Your task to perform on an android device: change notifications settings Image 0: 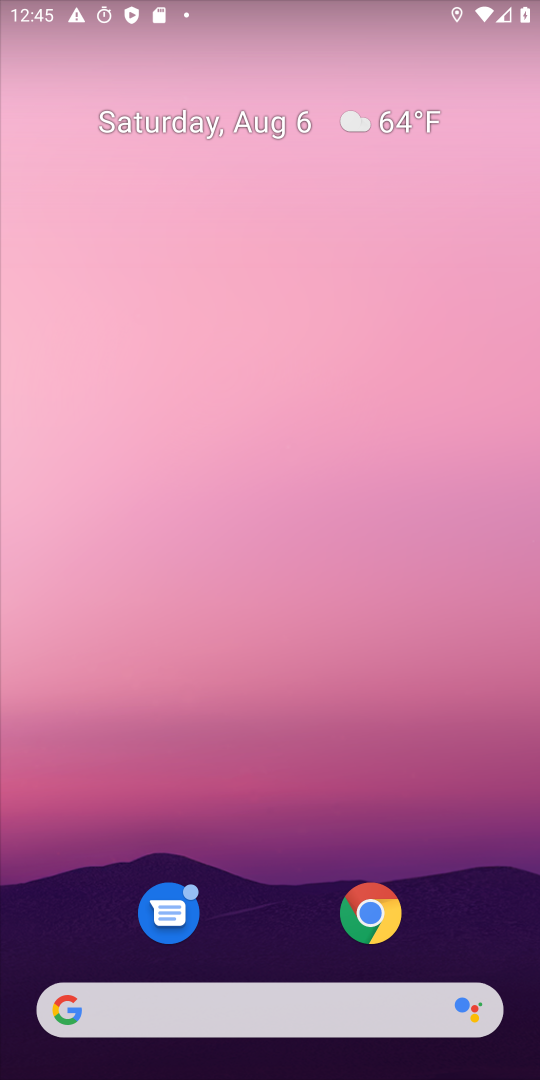
Step 0: press home button
Your task to perform on an android device: change notifications settings Image 1: 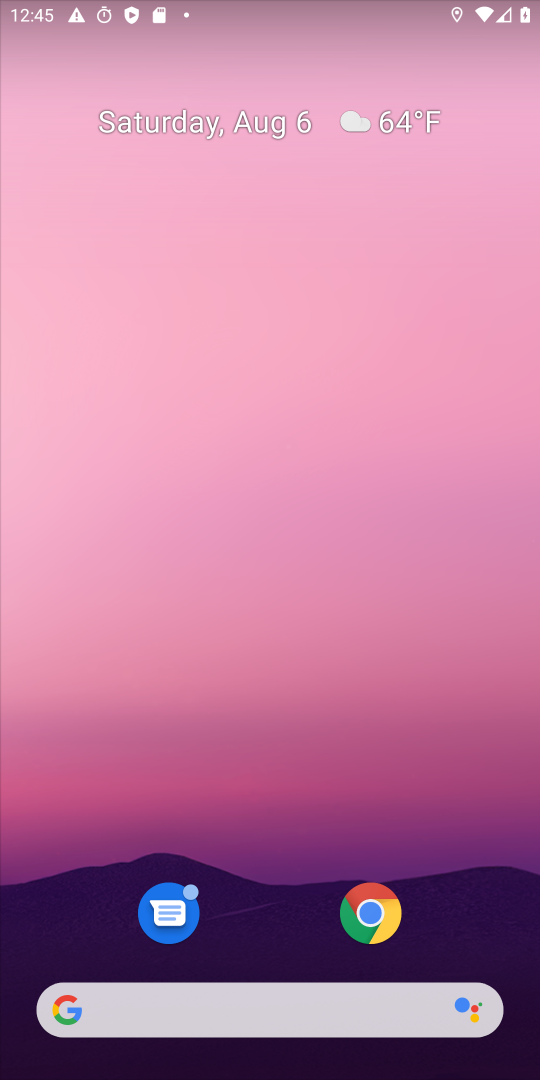
Step 1: drag from (453, 933) to (445, 340)
Your task to perform on an android device: change notifications settings Image 2: 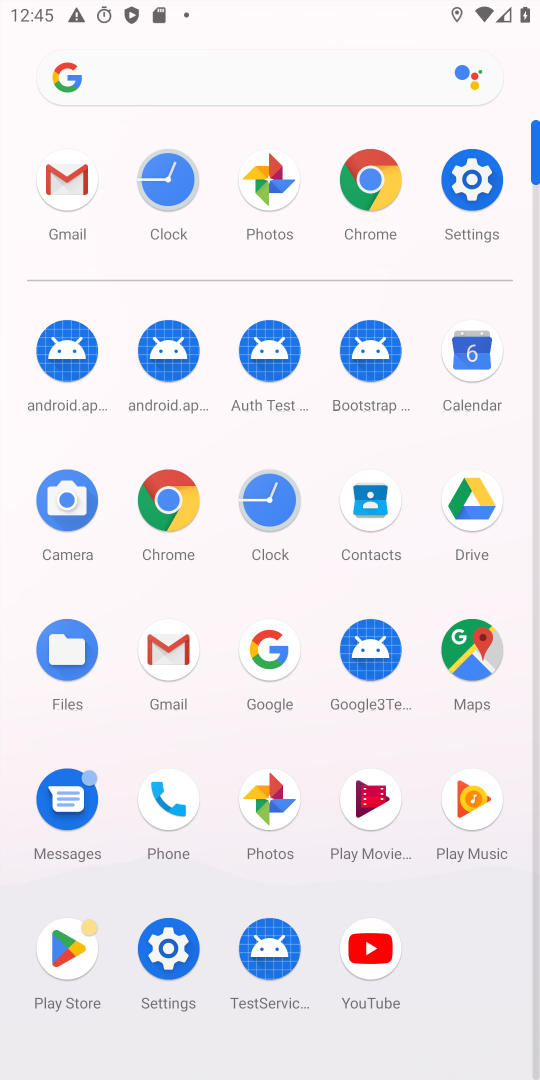
Step 2: click (477, 177)
Your task to perform on an android device: change notifications settings Image 3: 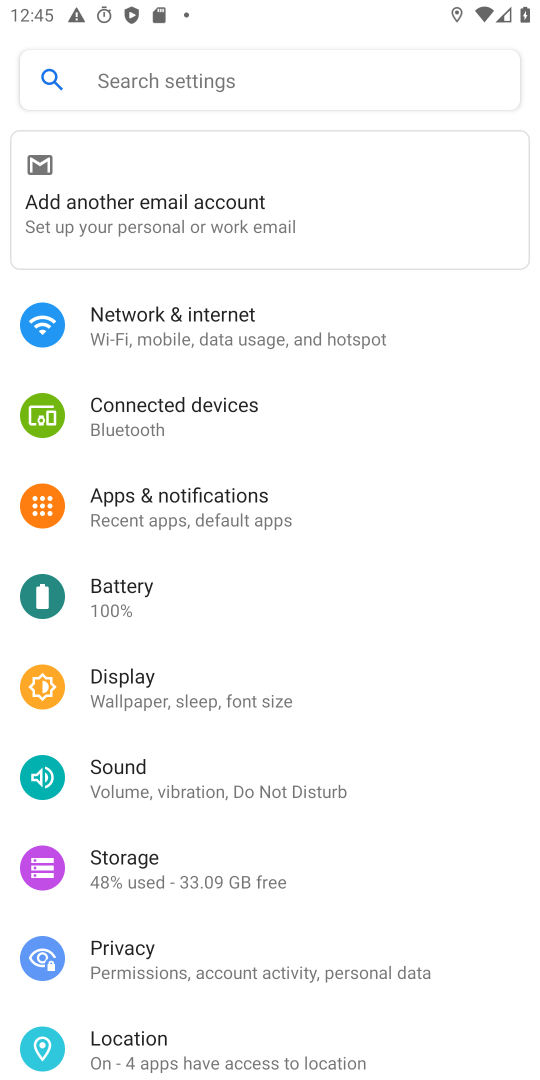
Step 3: drag from (400, 620) to (400, 555)
Your task to perform on an android device: change notifications settings Image 4: 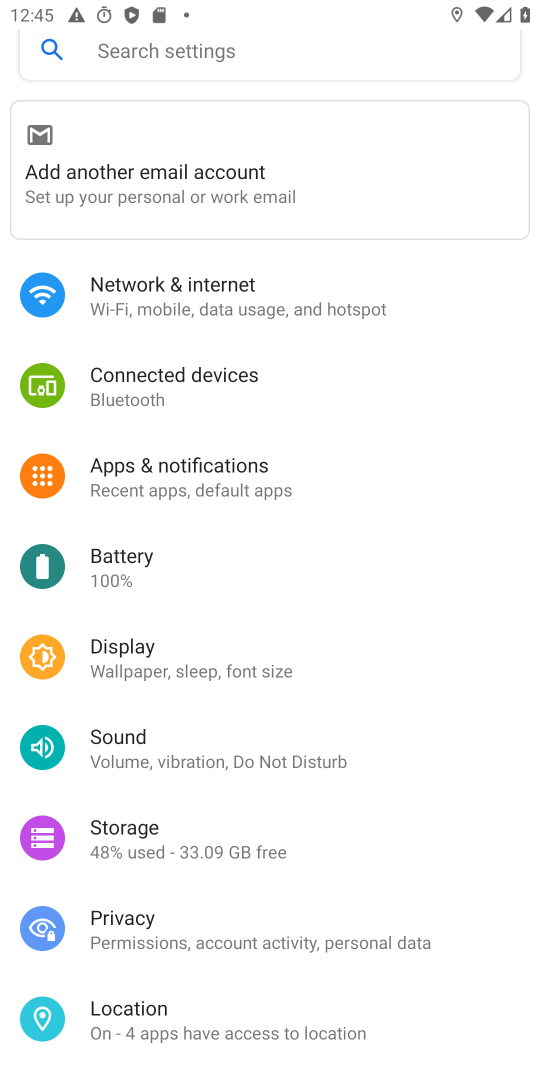
Step 4: drag from (420, 719) to (416, 554)
Your task to perform on an android device: change notifications settings Image 5: 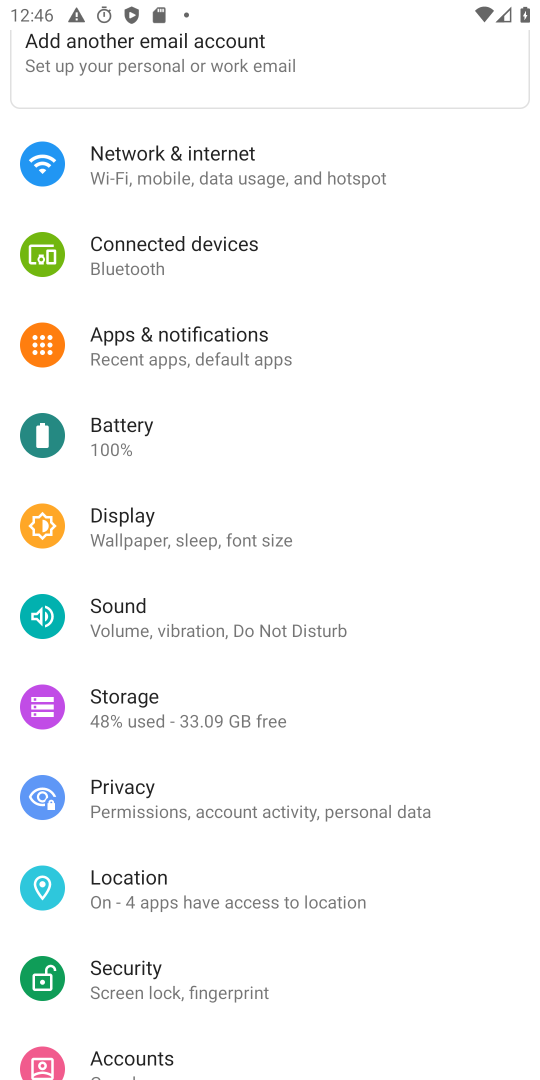
Step 5: drag from (461, 800) to (447, 572)
Your task to perform on an android device: change notifications settings Image 6: 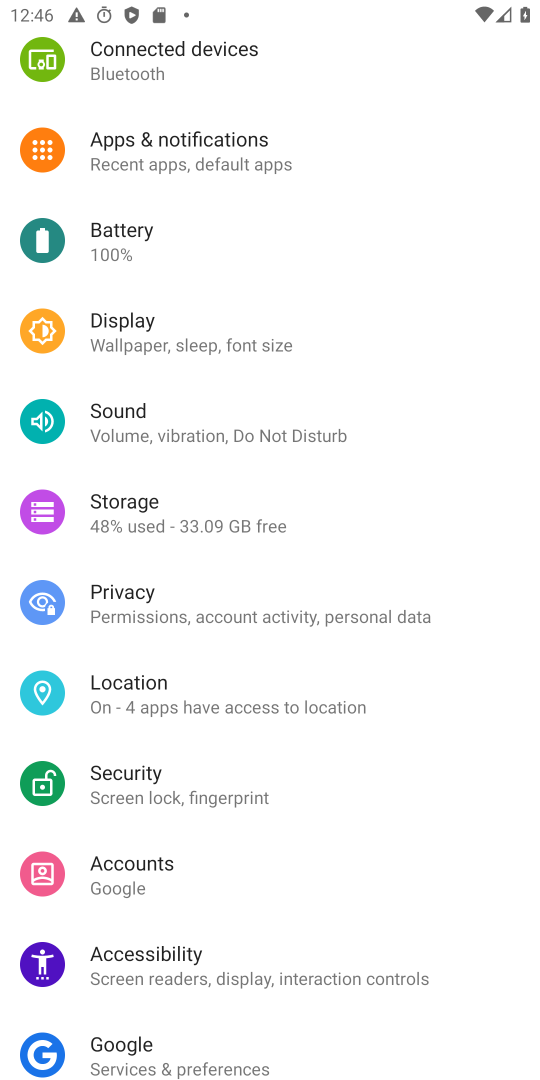
Step 6: drag from (455, 836) to (464, 638)
Your task to perform on an android device: change notifications settings Image 7: 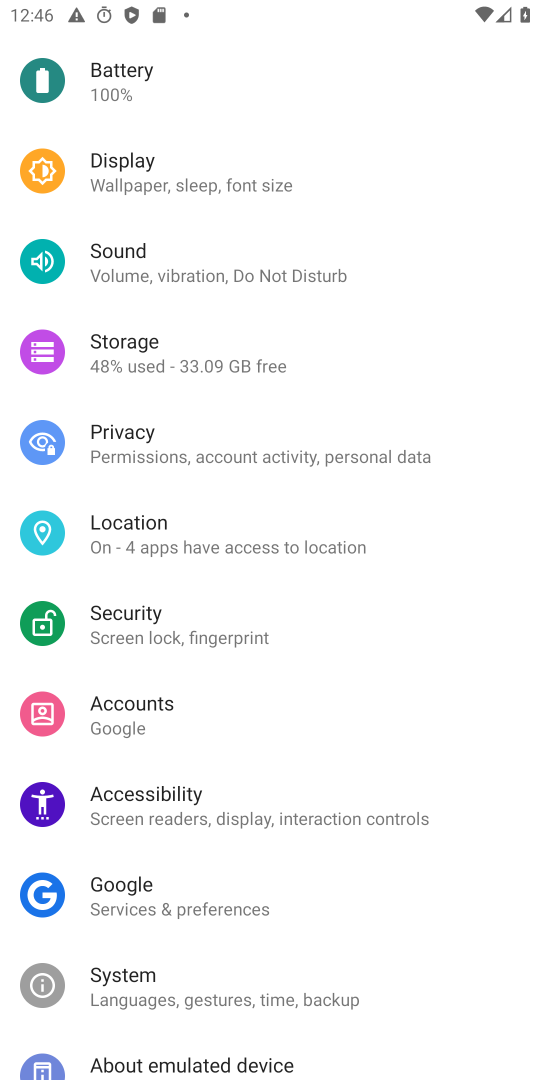
Step 7: drag from (478, 880) to (480, 623)
Your task to perform on an android device: change notifications settings Image 8: 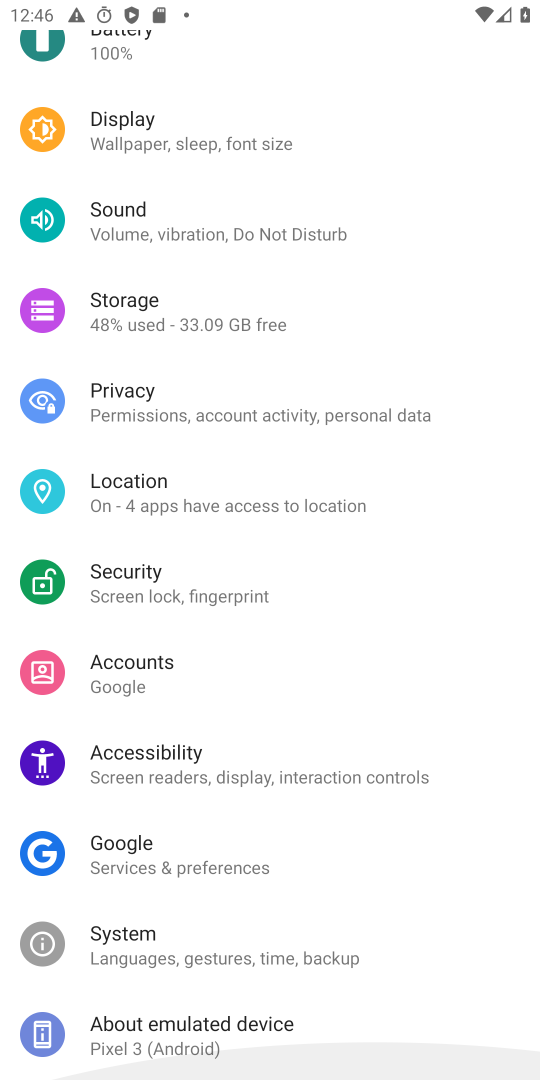
Step 8: drag from (498, 465) to (495, 687)
Your task to perform on an android device: change notifications settings Image 9: 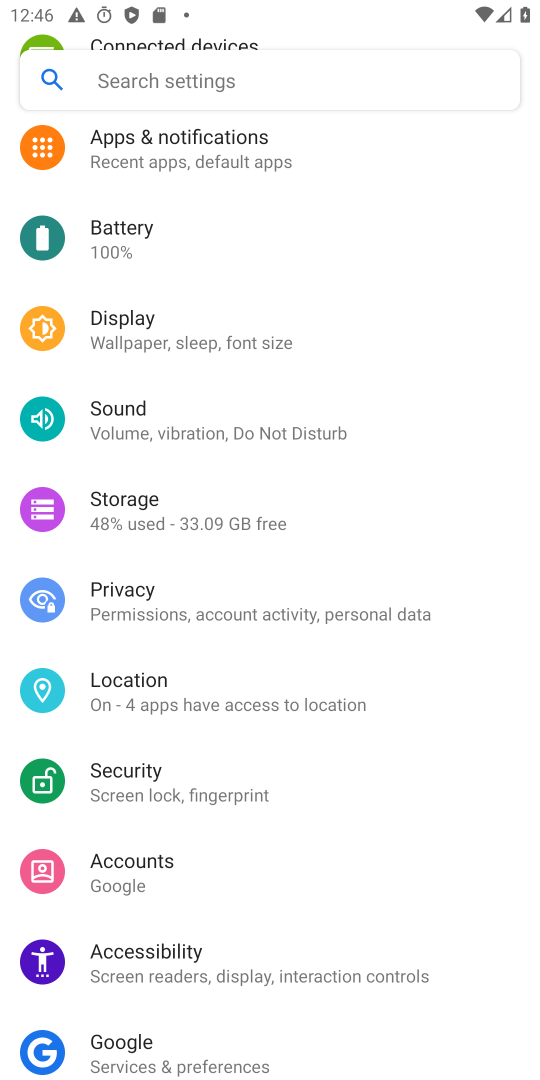
Step 9: drag from (481, 366) to (477, 563)
Your task to perform on an android device: change notifications settings Image 10: 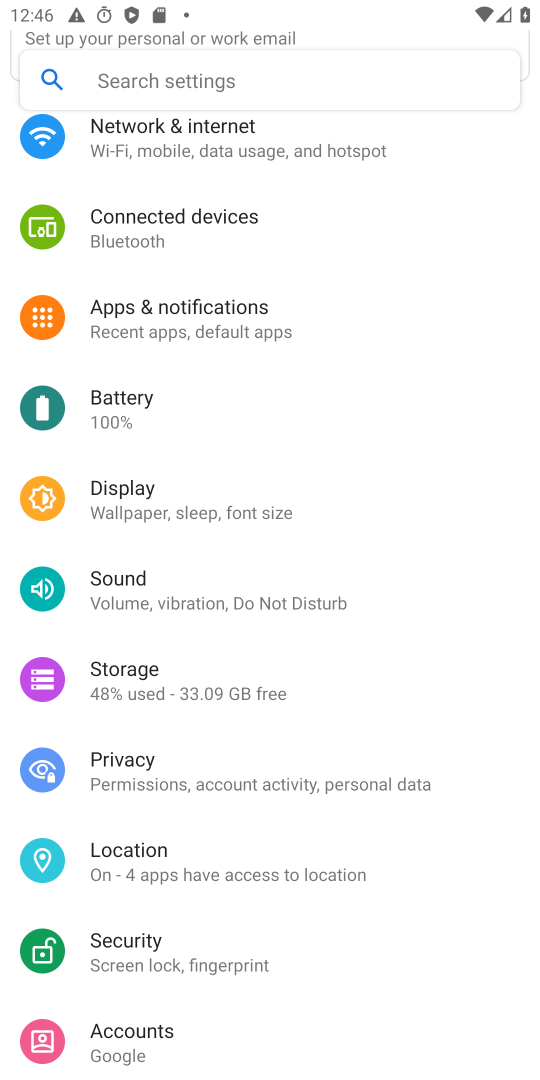
Step 10: drag from (481, 350) to (482, 547)
Your task to perform on an android device: change notifications settings Image 11: 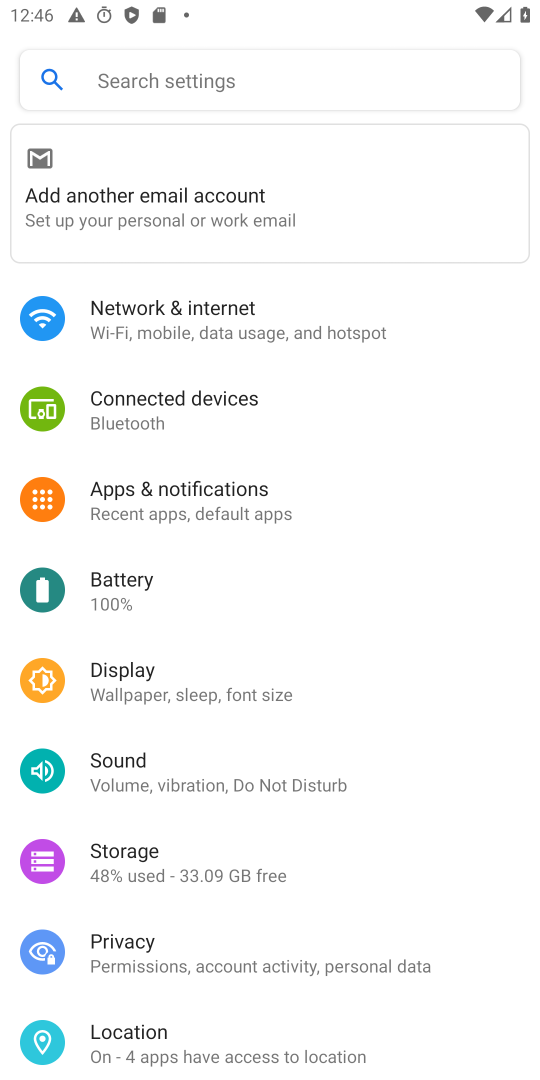
Step 11: drag from (484, 301) to (468, 556)
Your task to perform on an android device: change notifications settings Image 12: 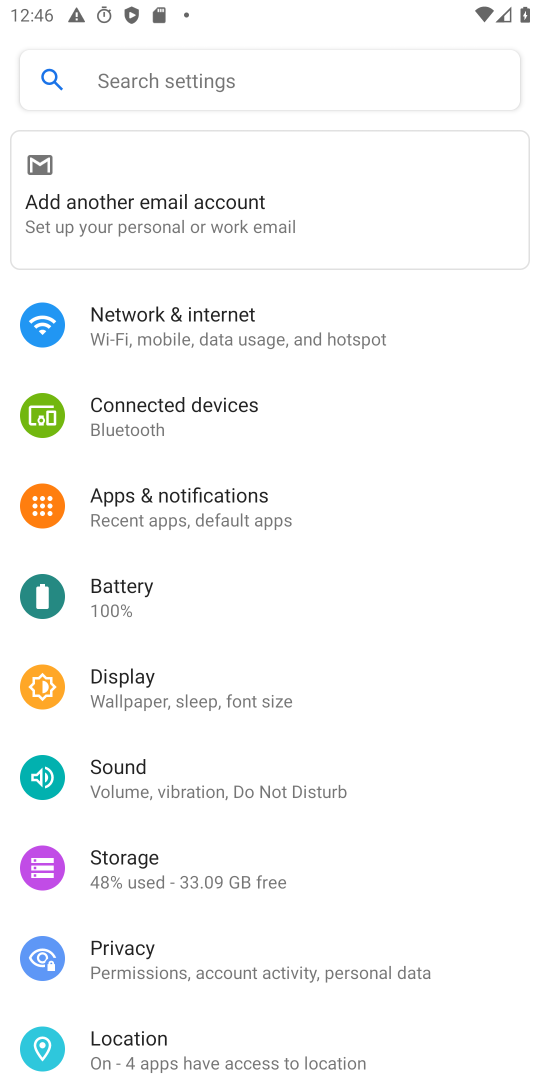
Step 12: click (260, 509)
Your task to perform on an android device: change notifications settings Image 13: 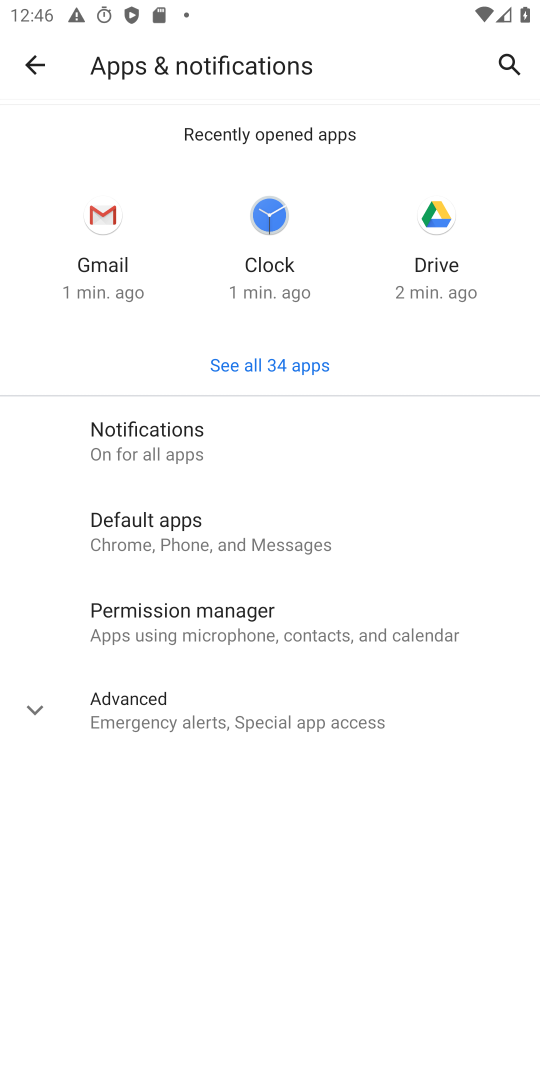
Step 13: click (174, 436)
Your task to perform on an android device: change notifications settings Image 14: 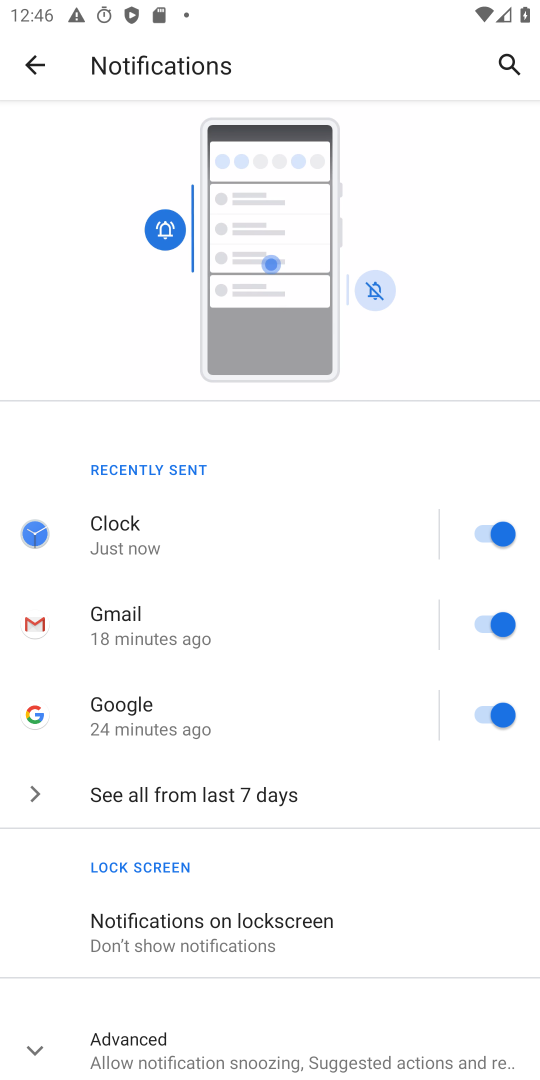
Step 14: click (478, 709)
Your task to perform on an android device: change notifications settings Image 15: 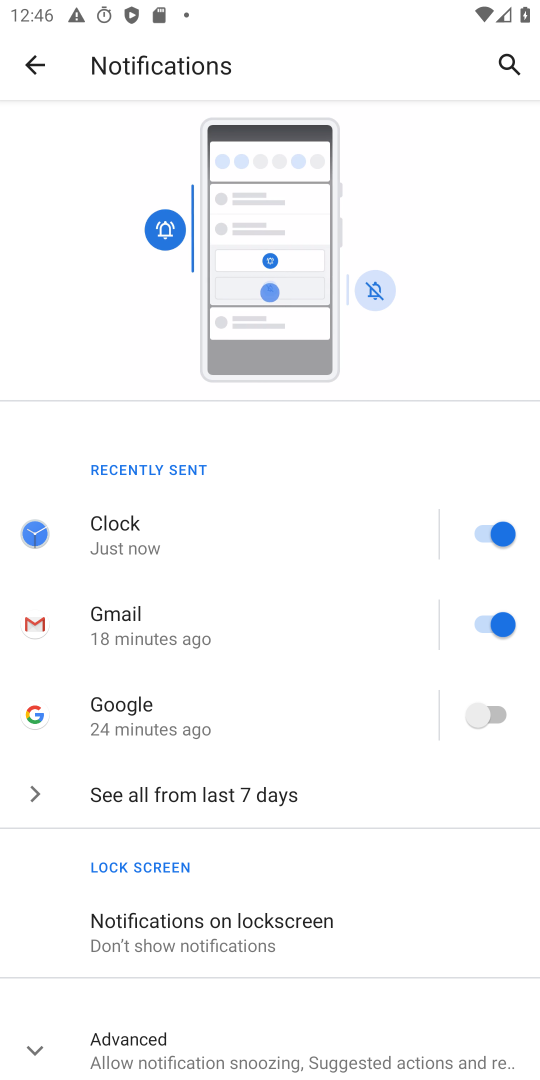
Step 15: click (508, 626)
Your task to perform on an android device: change notifications settings Image 16: 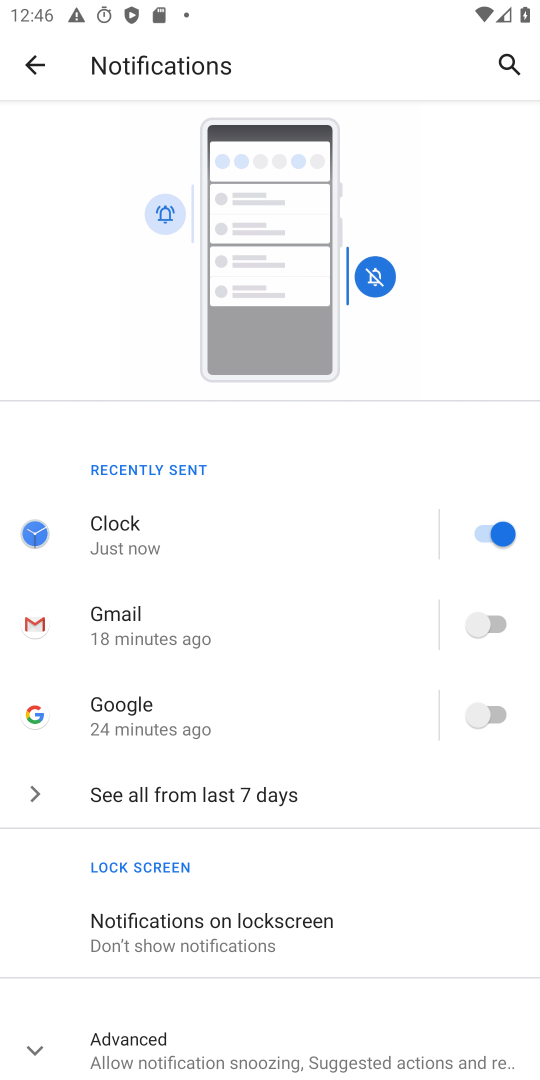
Step 16: click (492, 529)
Your task to perform on an android device: change notifications settings Image 17: 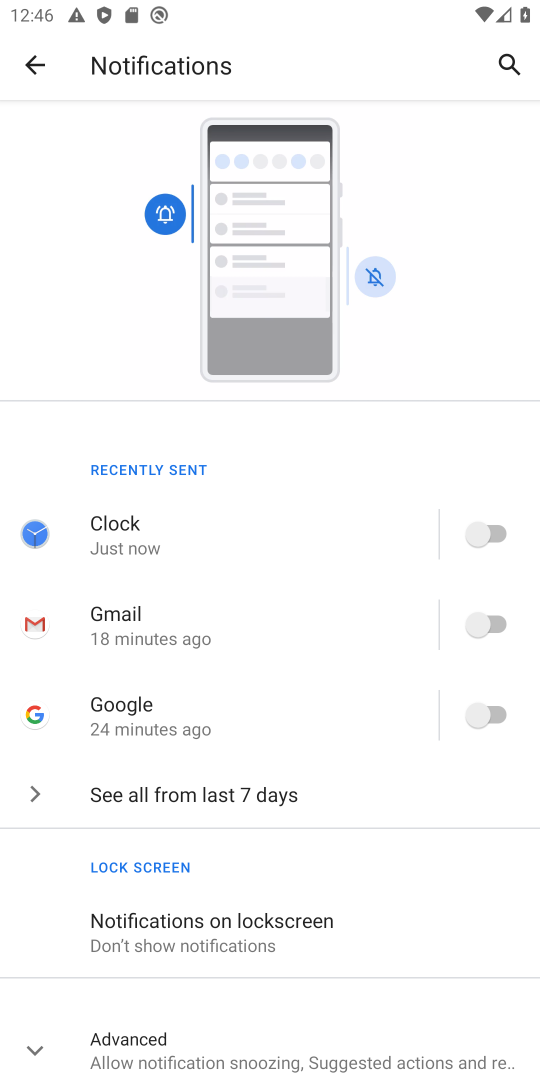
Step 17: task complete